Your task to perform on an android device: Turn on the flashlight Image 0: 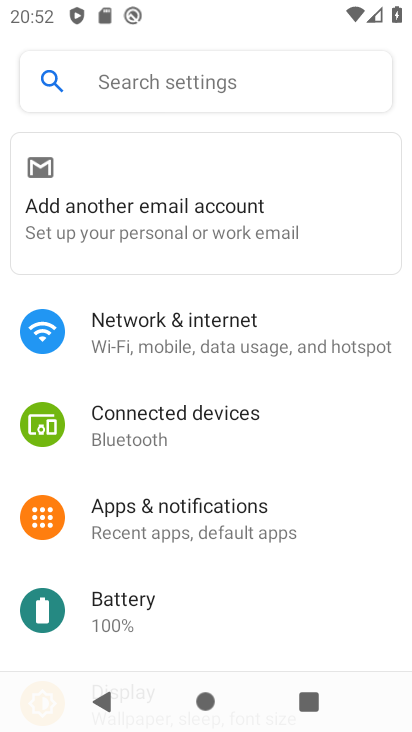
Step 0: press home button
Your task to perform on an android device: Turn on the flashlight Image 1: 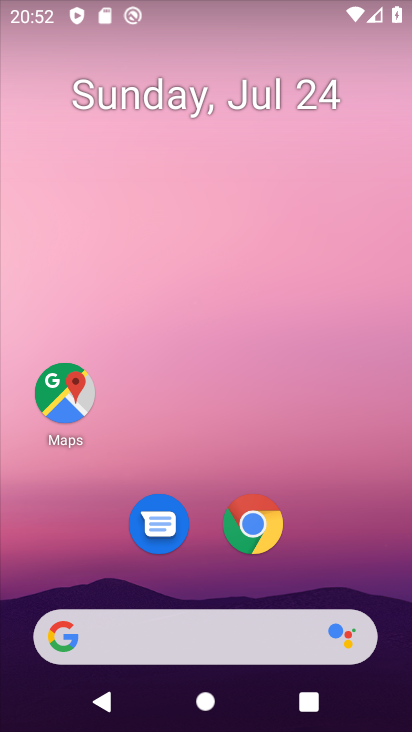
Step 1: task complete